Your task to perform on an android device: Clear the shopping cart on costco.com. Image 0: 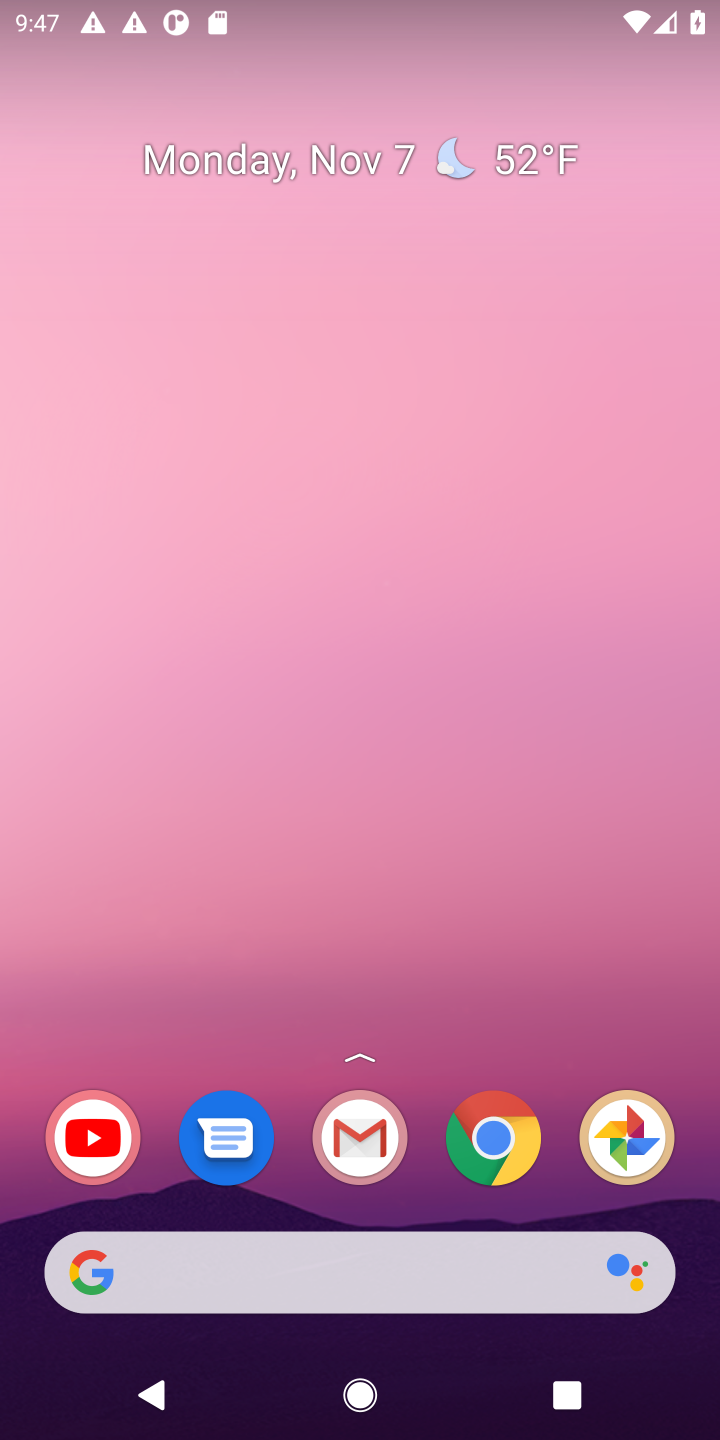
Step 0: click (483, 1128)
Your task to perform on an android device: Clear the shopping cart on costco.com. Image 1: 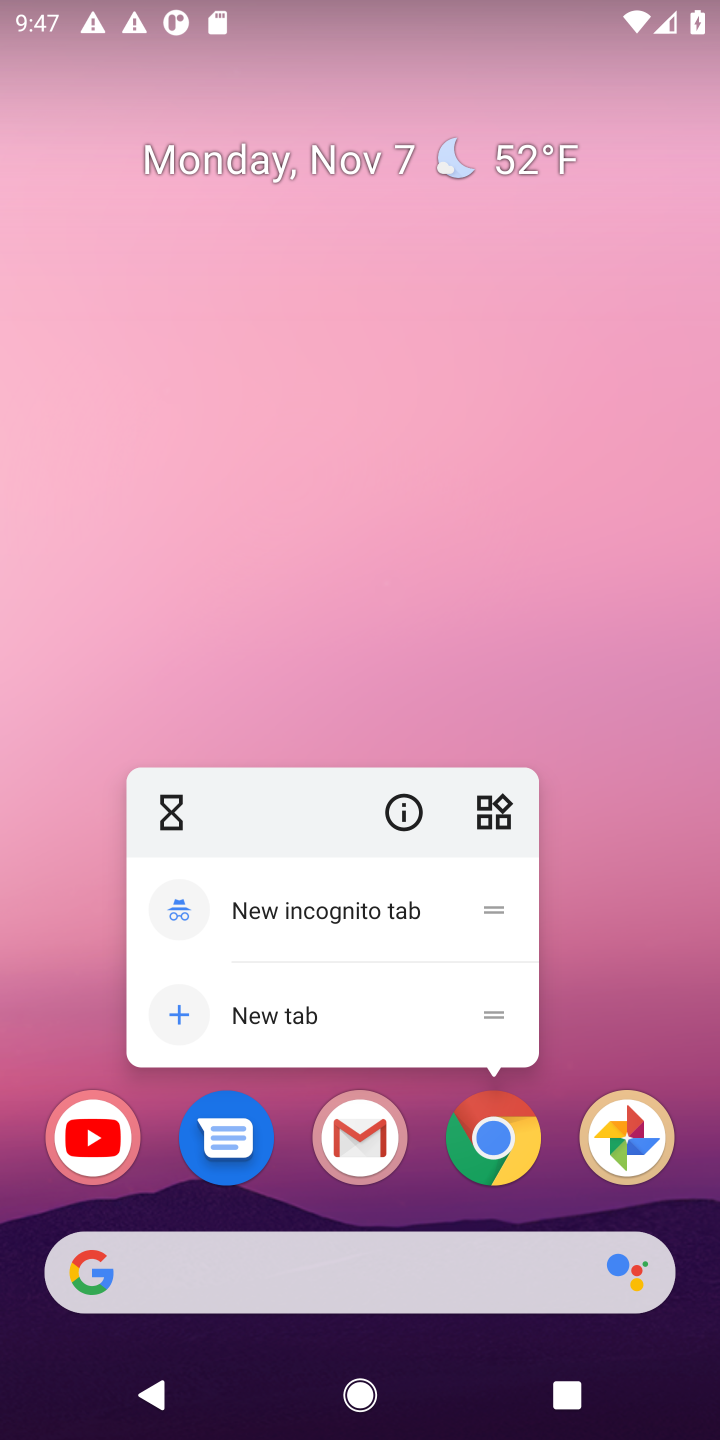
Step 1: click (499, 1145)
Your task to perform on an android device: Clear the shopping cart on costco.com. Image 2: 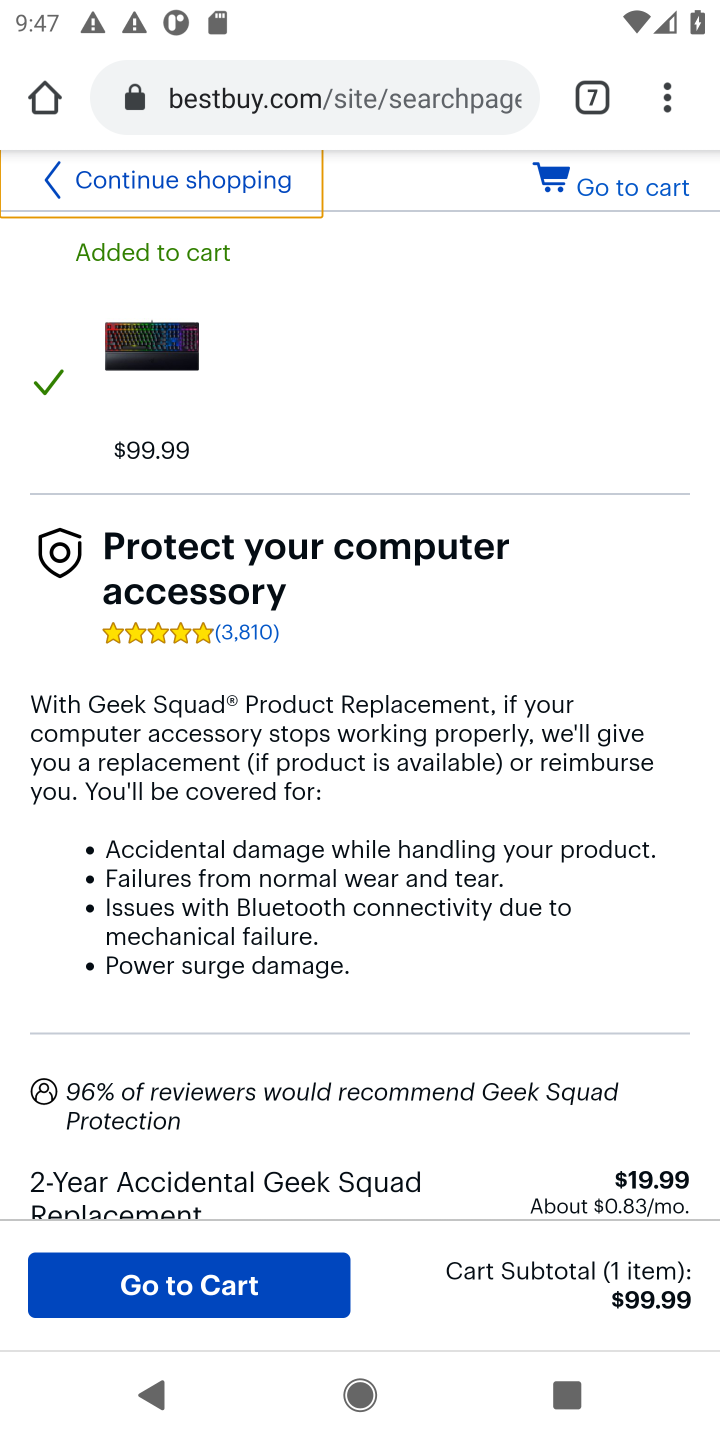
Step 2: click (585, 106)
Your task to perform on an android device: Clear the shopping cart on costco.com. Image 3: 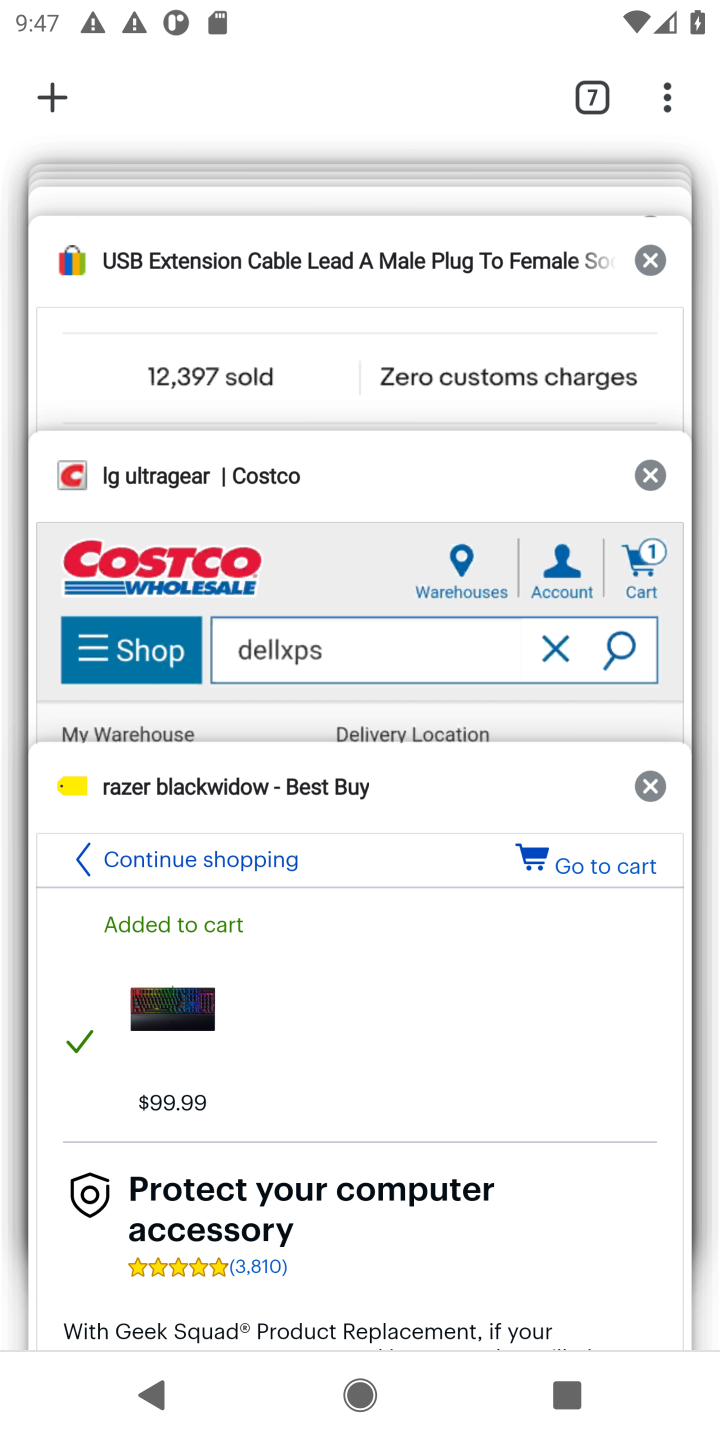
Step 3: click (375, 511)
Your task to perform on an android device: Clear the shopping cart on costco.com. Image 4: 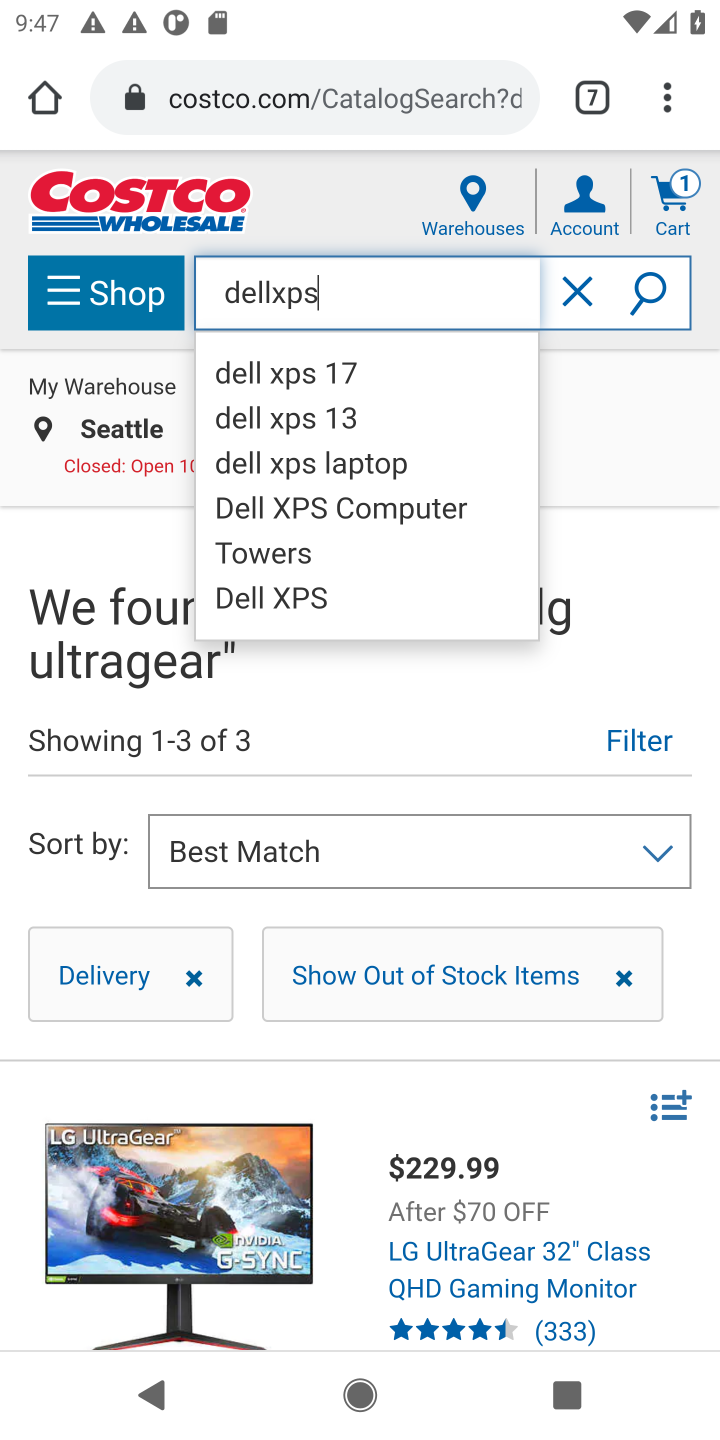
Step 4: click (680, 196)
Your task to perform on an android device: Clear the shopping cart on costco.com. Image 5: 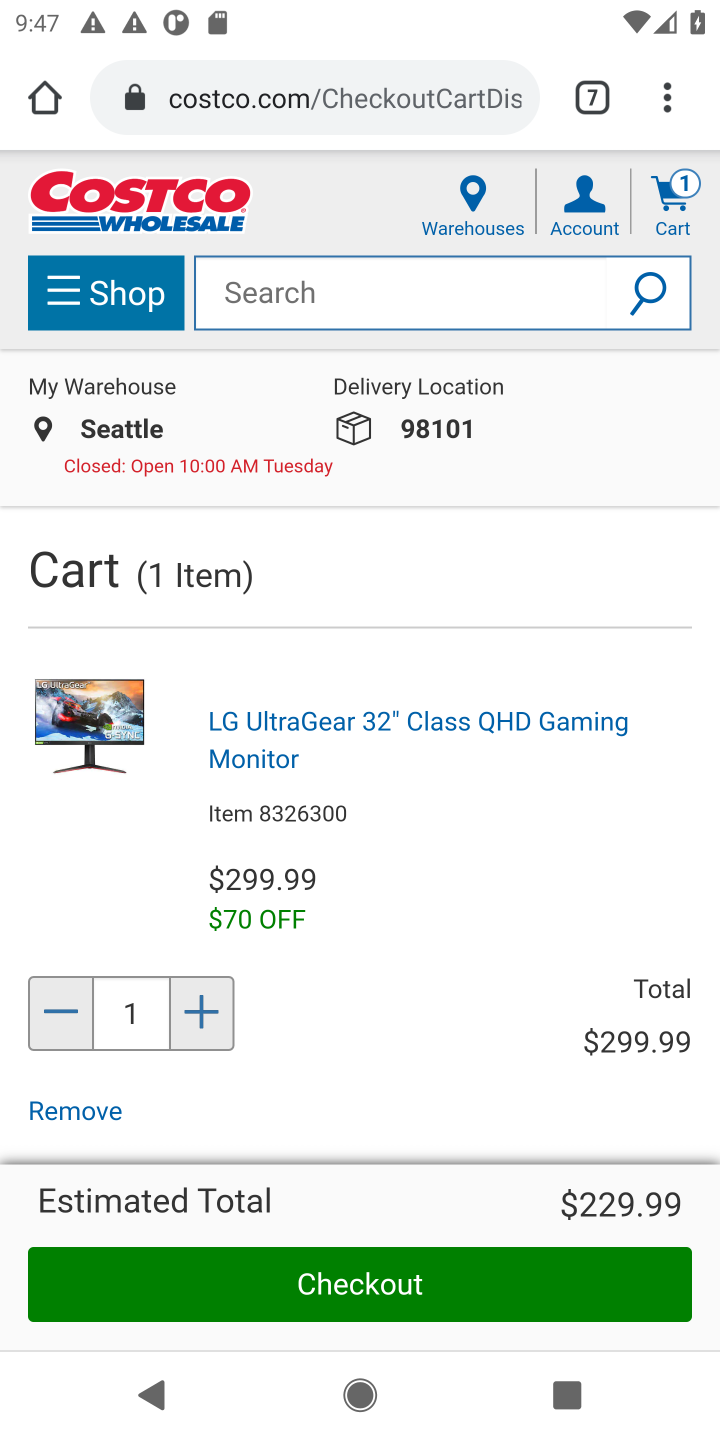
Step 5: click (98, 1107)
Your task to perform on an android device: Clear the shopping cart on costco.com. Image 6: 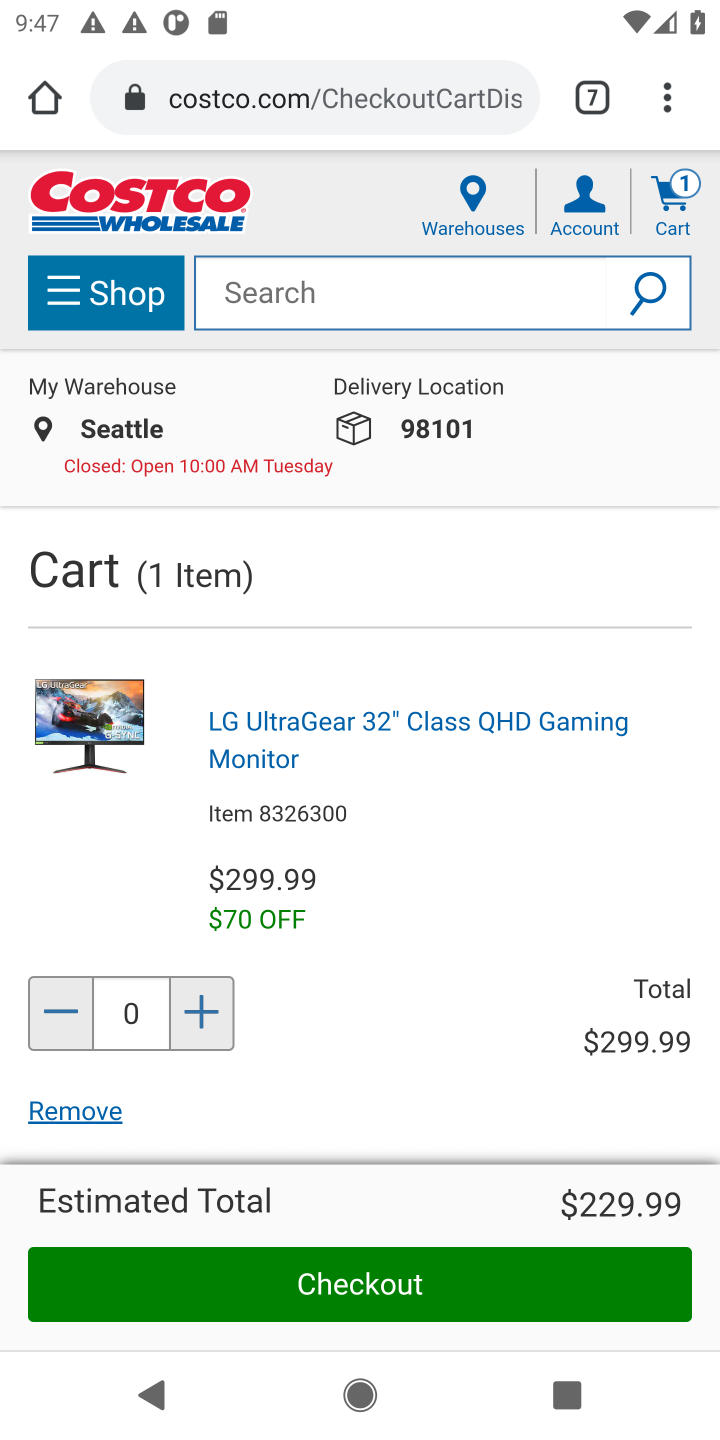
Step 6: click (80, 1116)
Your task to perform on an android device: Clear the shopping cart on costco.com. Image 7: 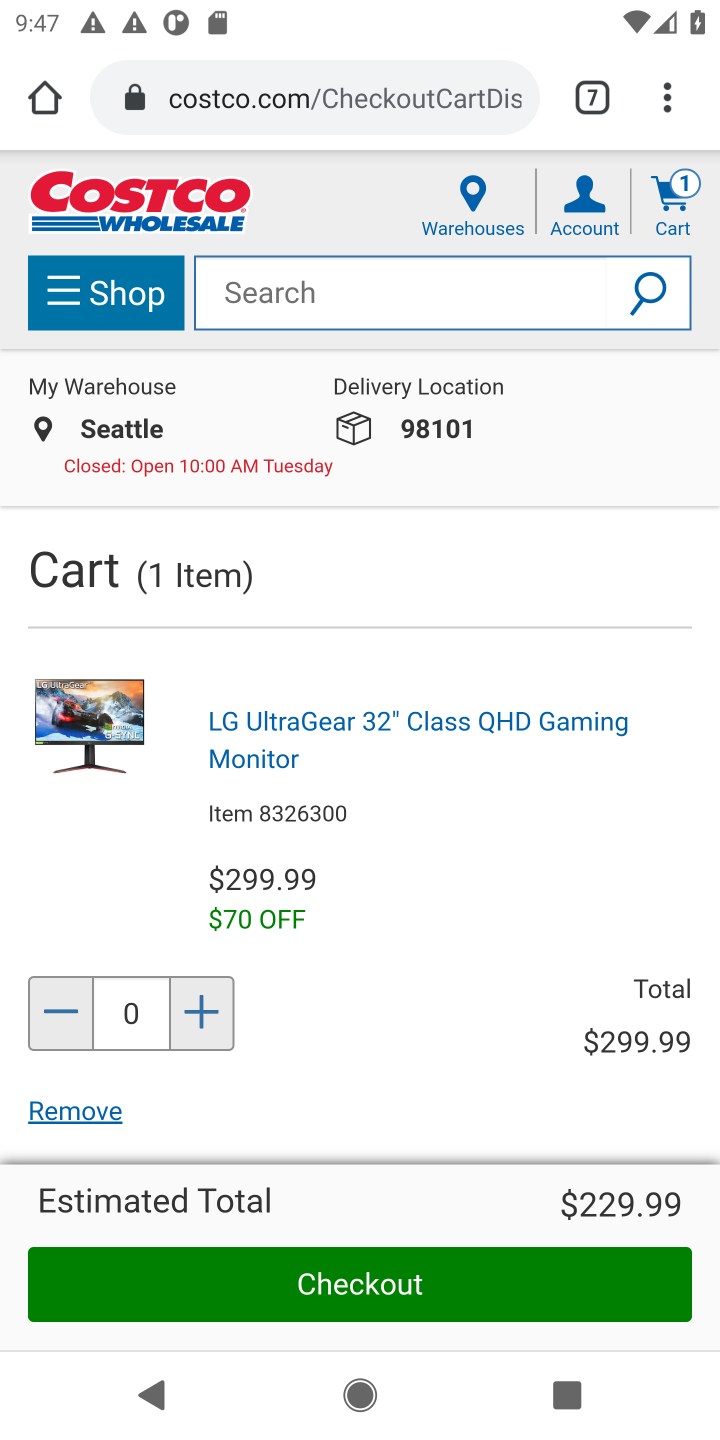
Step 7: click (80, 1116)
Your task to perform on an android device: Clear the shopping cart on costco.com. Image 8: 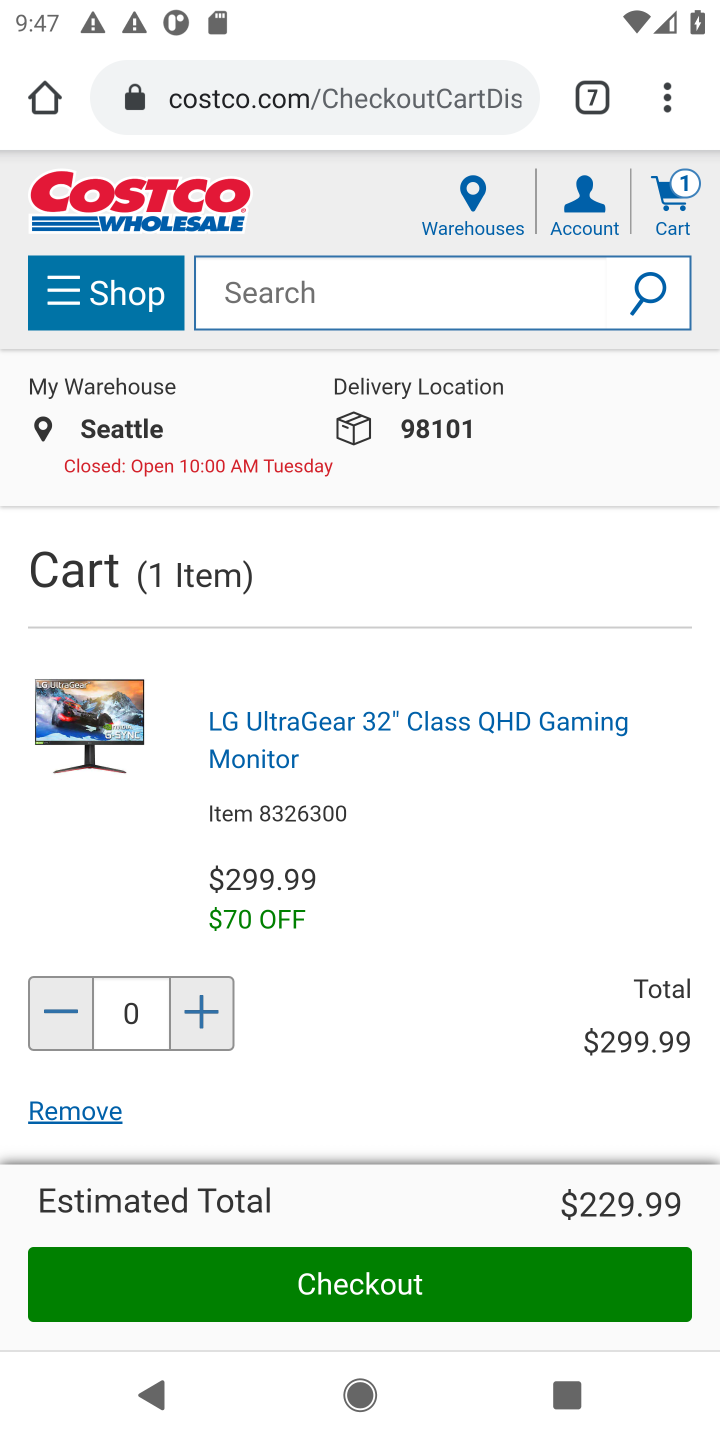
Step 8: click (80, 1116)
Your task to perform on an android device: Clear the shopping cart on costco.com. Image 9: 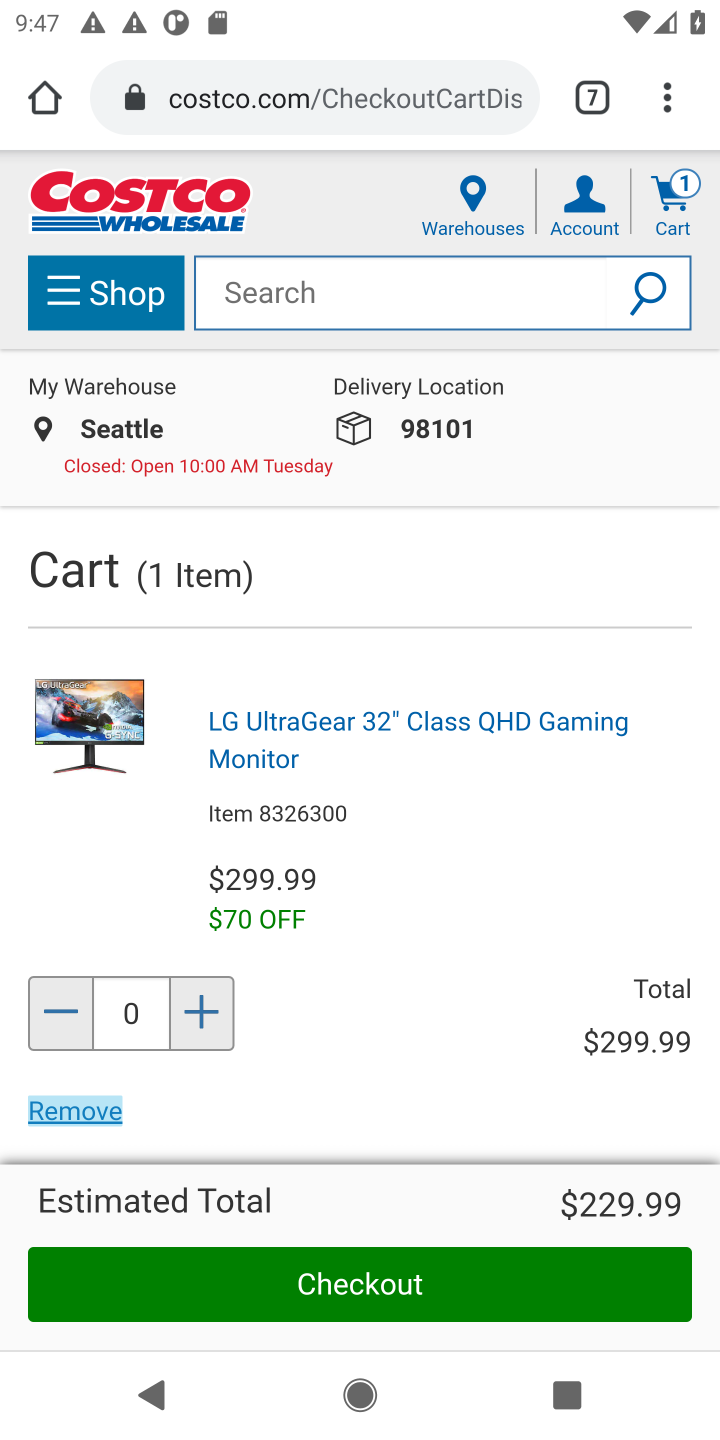
Step 9: click (80, 1116)
Your task to perform on an android device: Clear the shopping cart on costco.com. Image 10: 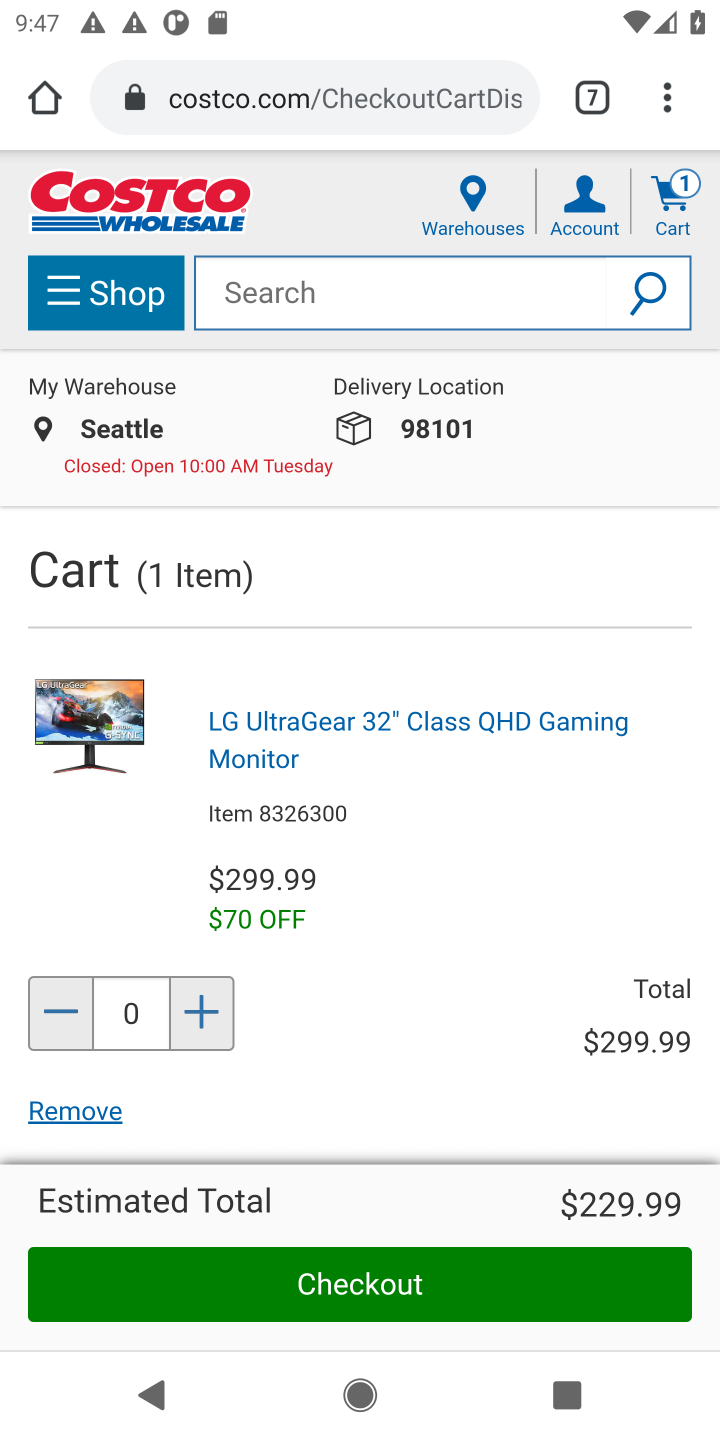
Step 10: task complete